Your task to perform on an android device: install app "Viber Messenger" Image 0: 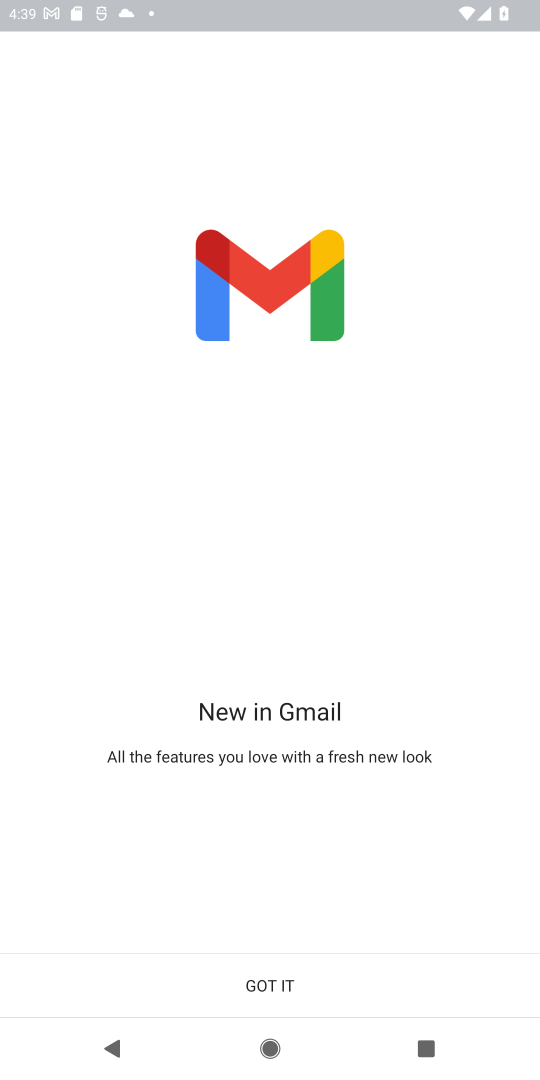
Step 0: press home button
Your task to perform on an android device: install app "Viber Messenger" Image 1: 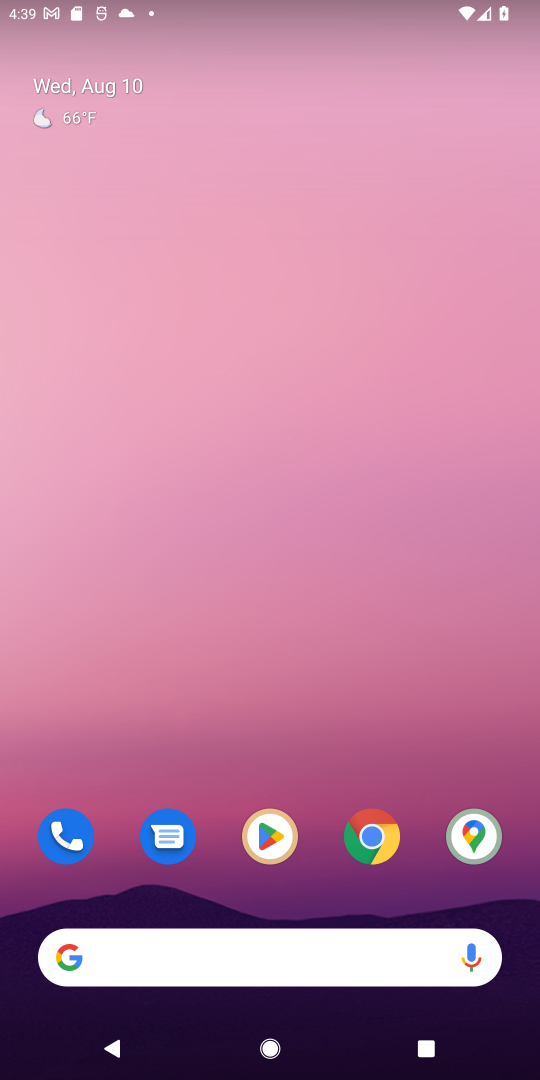
Step 1: drag from (166, 816) to (149, 256)
Your task to perform on an android device: install app "Viber Messenger" Image 2: 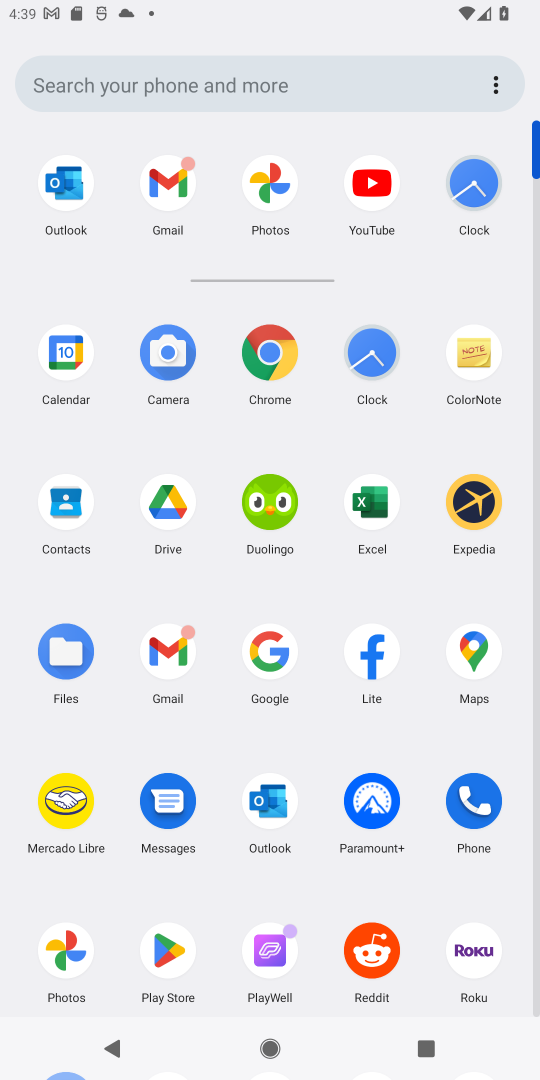
Step 2: click (165, 937)
Your task to perform on an android device: install app "Viber Messenger" Image 3: 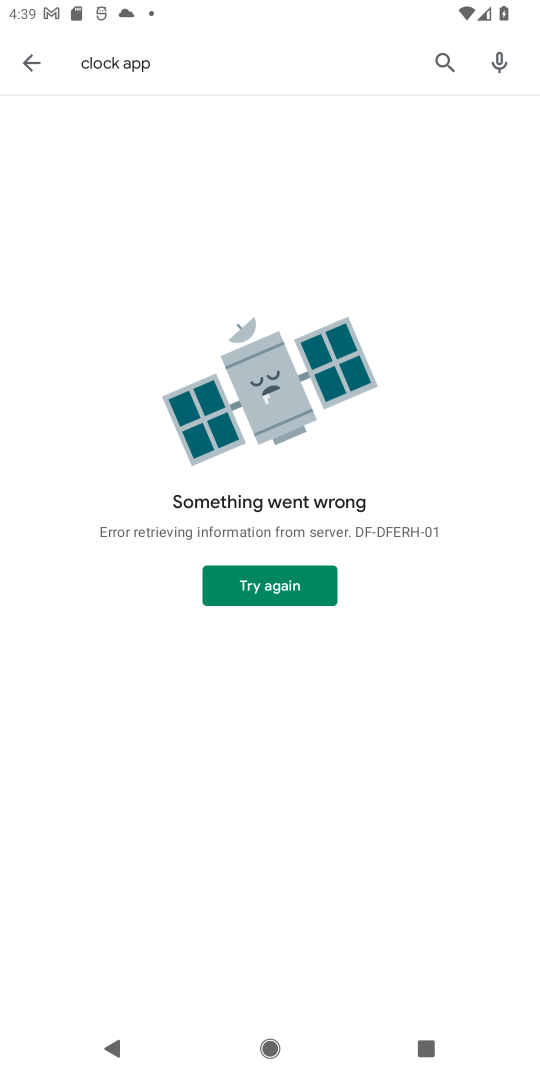
Step 3: click (275, 577)
Your task to perform on an android device: install app "Viber Messenger" Image 4: 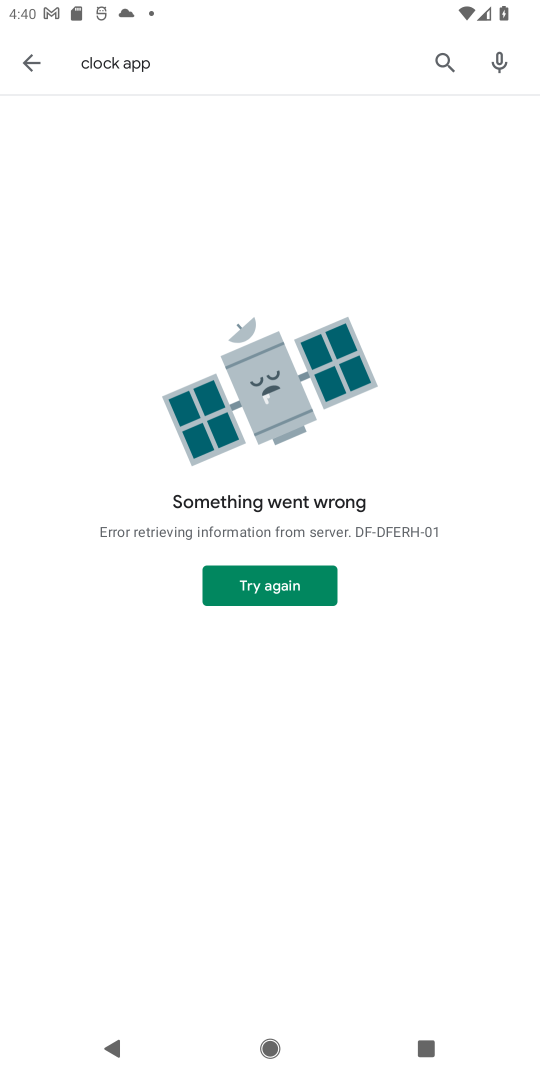
Step 4: click (35, 66)
Your task to perform on an android device: install app "Viber Messenger" Image 5: 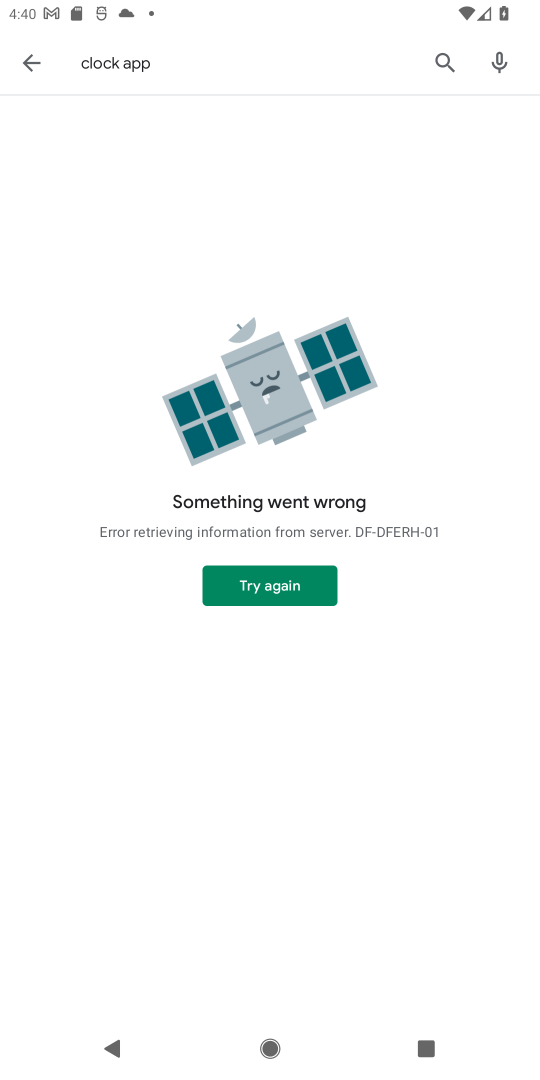
Step 5: click (45, 60)
Your task to perform on an android device: install app "Viber Messenger" Image 6: 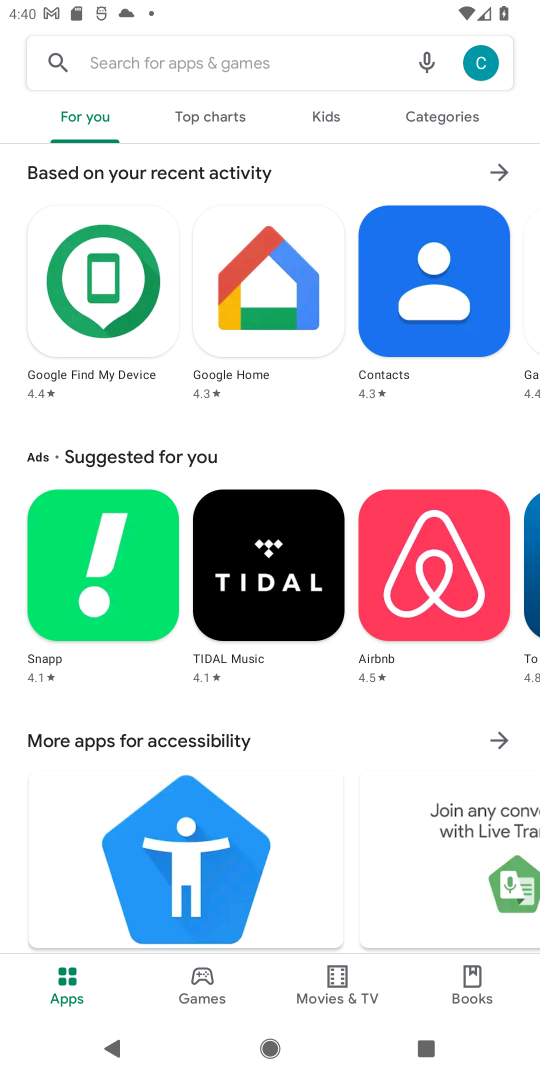
Step 6: click (140, 55)
Your task to perform on an android device: install app "Viber Messenger" Image 7: 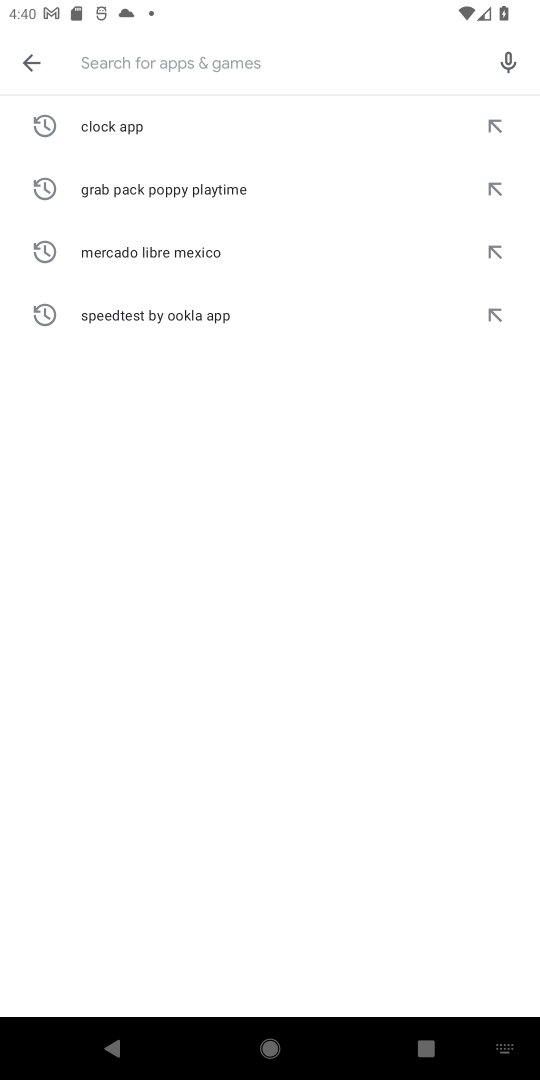
Step 7: type "Viber Messenge "
Your task to perform on an android device: install app "Viber Messenger" Image 8: 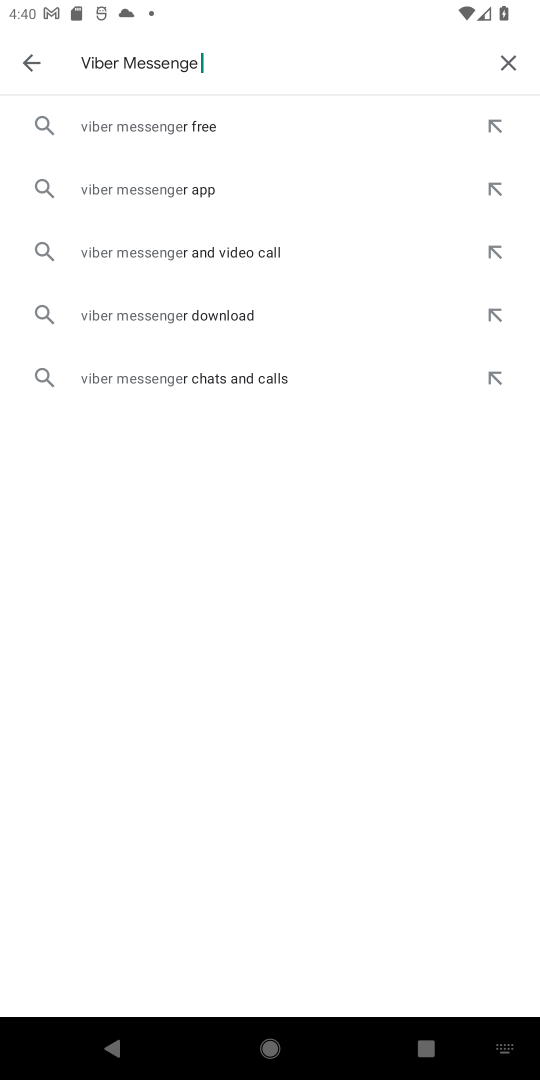
Step 8: click (120, 138)
Your task to perform on an android device: install app "Viber Messenger" Image 9: 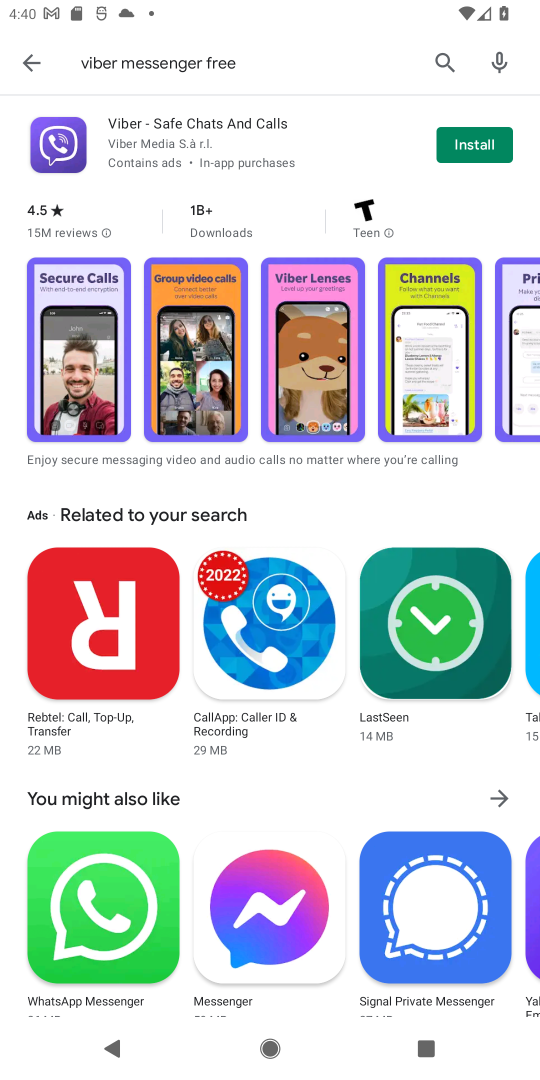
Step 9: click (502, 149)
Your task to perform on an android device: install app "Viber Messenger" Image 10: 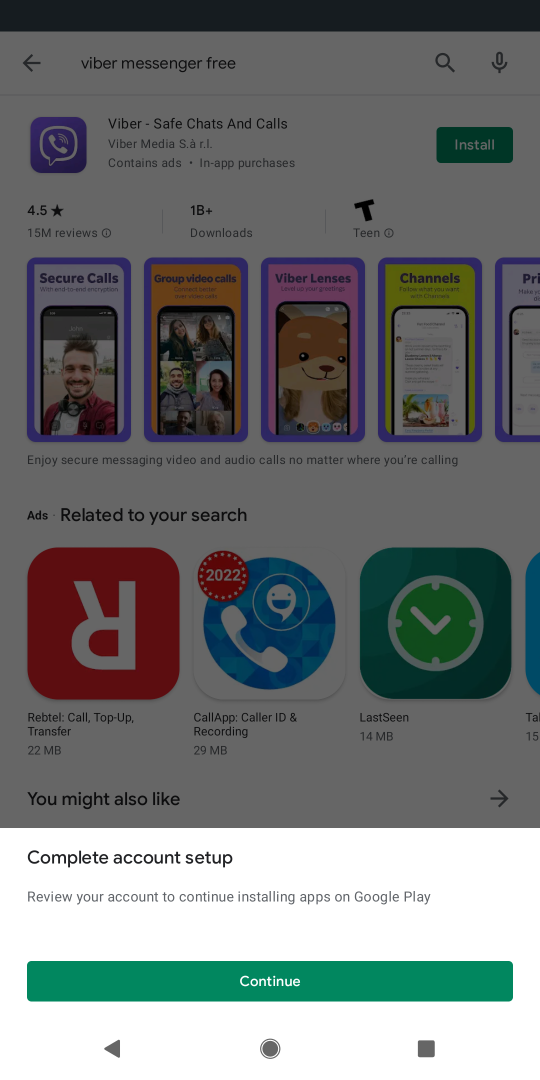
Step 10: click (326, 957)
Your task to perform on an android device: install app "Viber Messenger" Image 11: 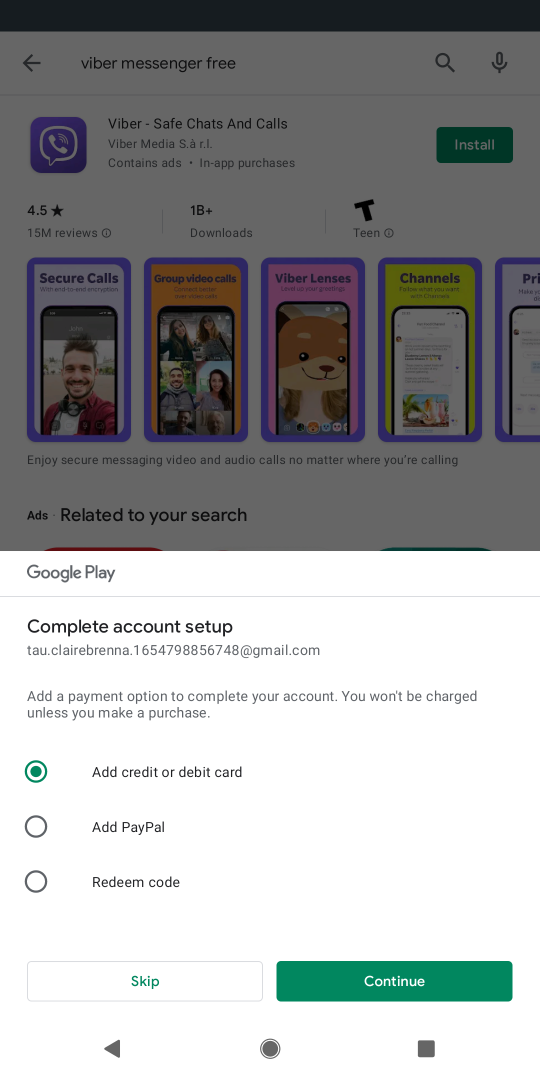
Step 11: task complete